Your task to perform on an android device: read, delete, or share a saved page in the chrome app Image 0: 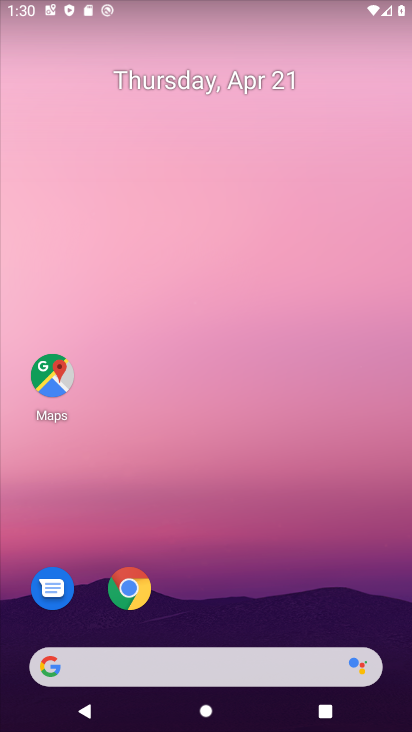
Step 0: click (137, 599)
Your task to perform on an android device: read, delete, or share a saved page in the chrome app Image 1: 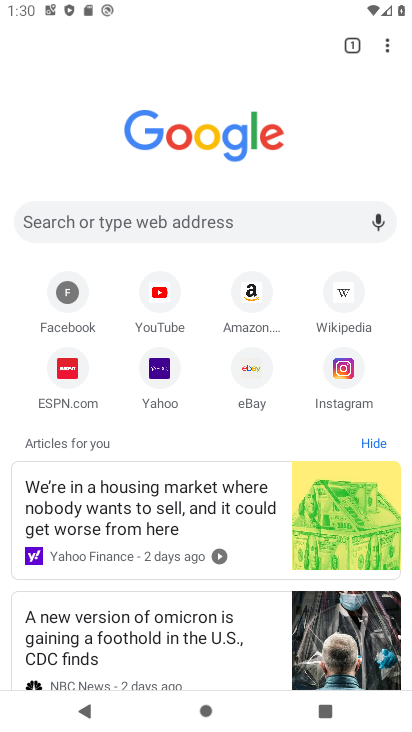
Step 1: click (387, 49)
Your task to perform on an android device: read, delete, or share a saved page in the chrome app Image 2: 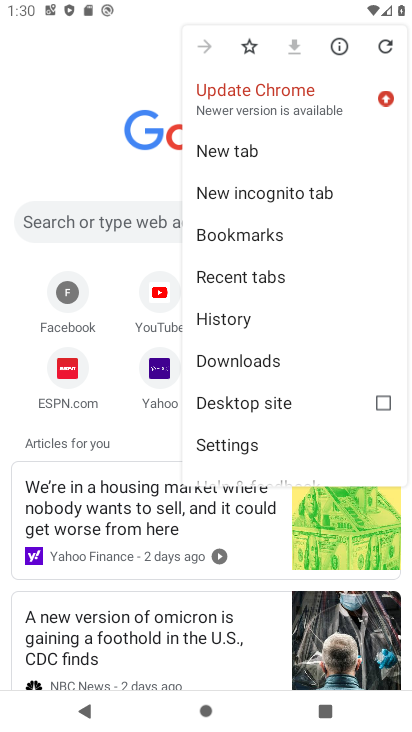
Step 2: click (266, 364)
Your task to perform on an android device: read, delete, or share a saved page in the chrome app Image 3: 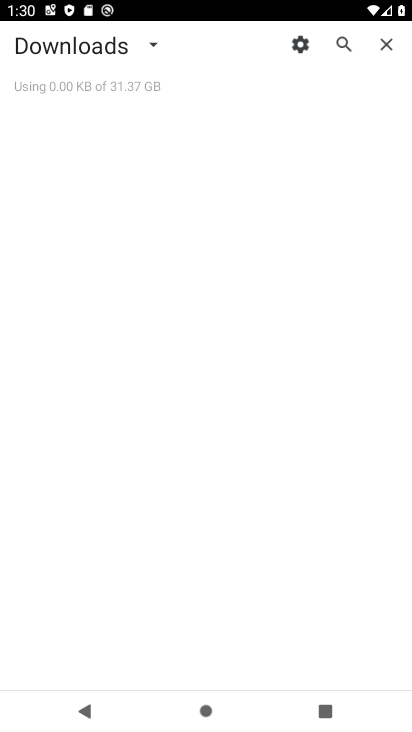
Step 3: click (150, 45)
Your task to perform on an android device: read, delete, or share a saved page in the chrome app Image 4: 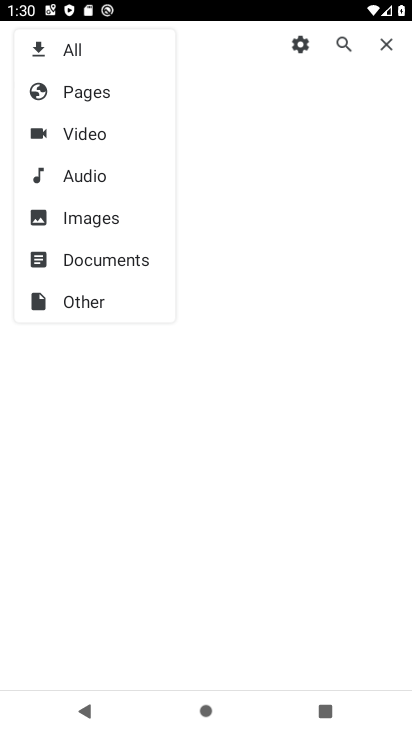
Step 4: click (112, 104)
Your task to perform on an android device: read, delete, or share a saved page in the chrome app Image 5: 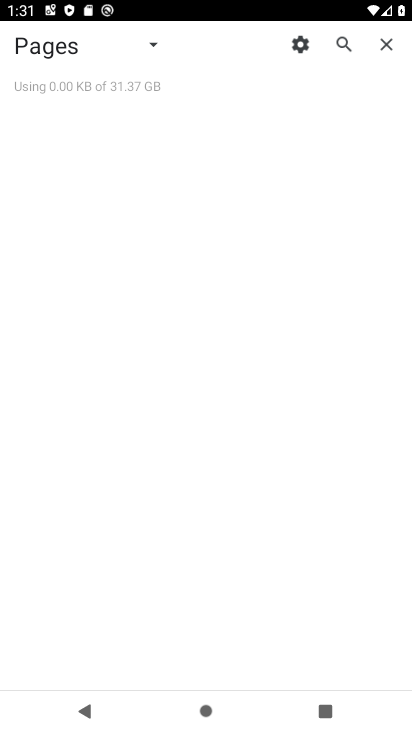
Step 5: task complete